Your task to perform on an android device: What's the weather going to be this weekend? Image 0: 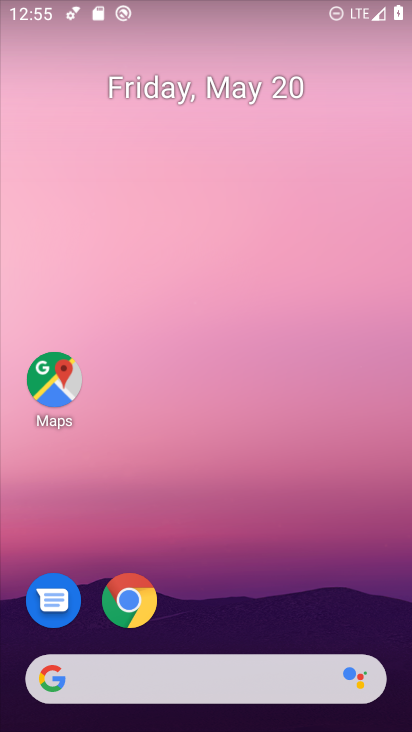
Step 0: drag from (26, 249) to (408, 198)
Your task to perform on an android device: What's the weather going to be this weekend? Image 1: 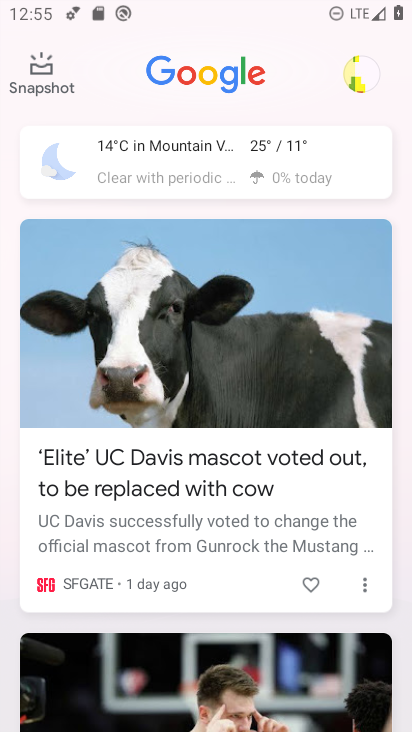
Step 1: click (87, 173)
Your task to perform on an android device: What's the weather going to be this weekend? Image 2: 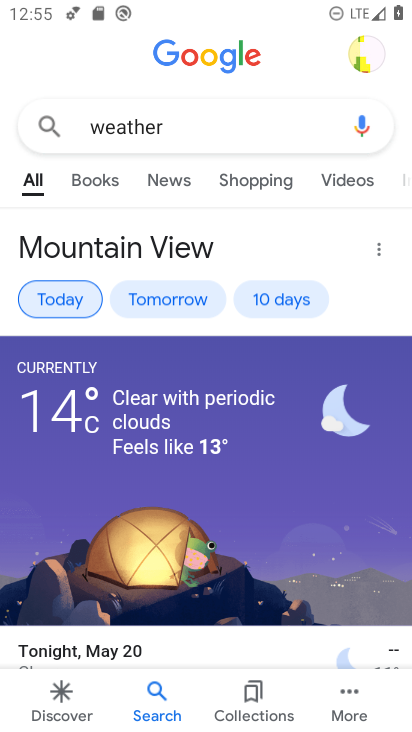
Step 2: click (290, 300)
Your task to perform on an android device: What's the weather going to be this weekend? Image 3: 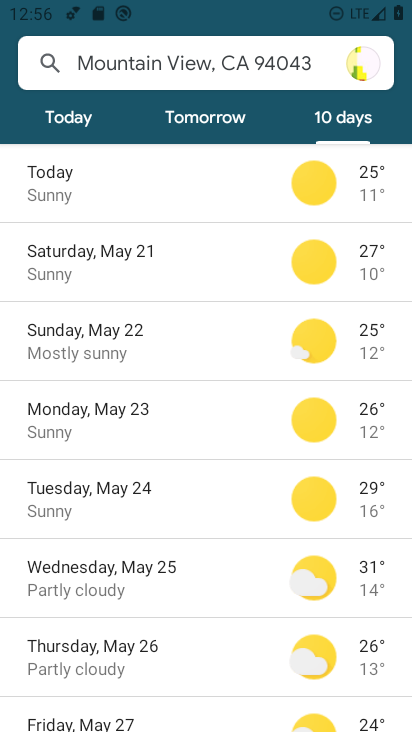
Step 3: task complete